Your task to perform on an android device: toggle pop-ups in chrome Image 0: 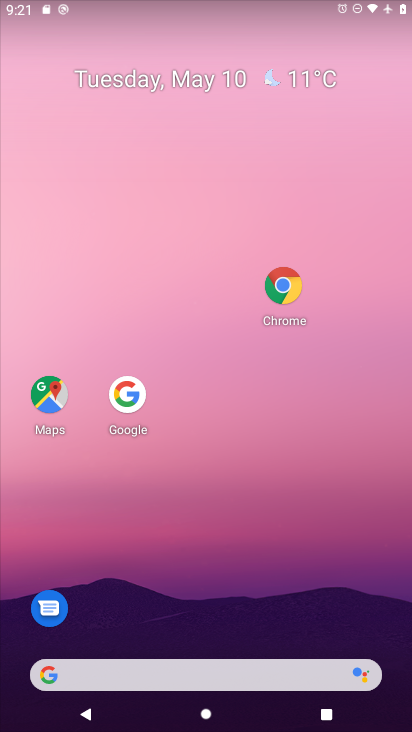
Step 0: drag from (109, 621) to (236, 187)
Your task to perform on an android device: toggle pop-ups in chrome Image 1: 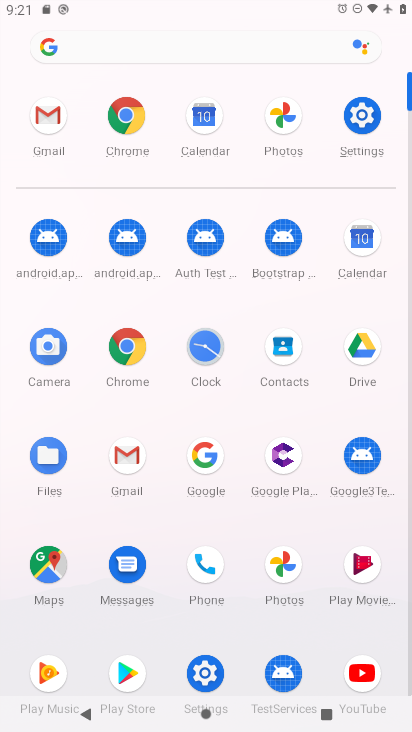
Step 1: click (123, 122)
Your task to perform on an android device: toggle pop-ups in chrome Image 2: 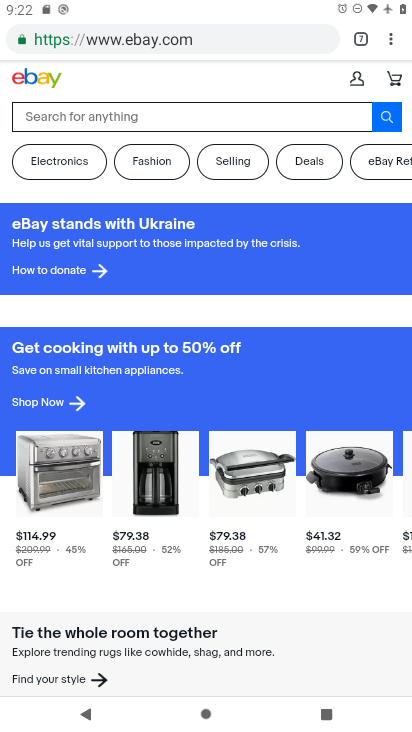
Step 2: drag from (388, 41) to (273, 471)
Your task to perform on an android device: toggle pop-ups in chrome Image 3: 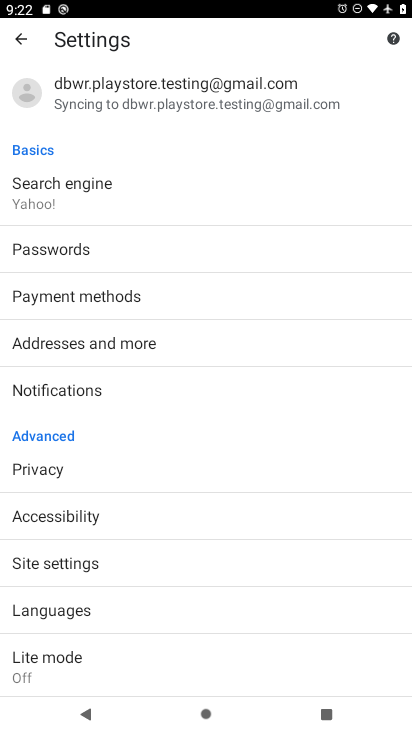
Step 3: click (56, 567)
Your task to perform on an android device: toggle pop-ups in chrome Image 4: 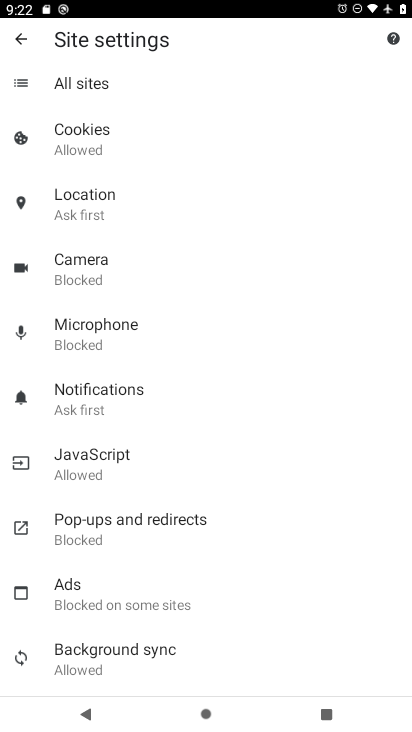
Step 4: click (63, 535)
Your task to perform on an android device: toggle pop-ups in chrome Image 5: 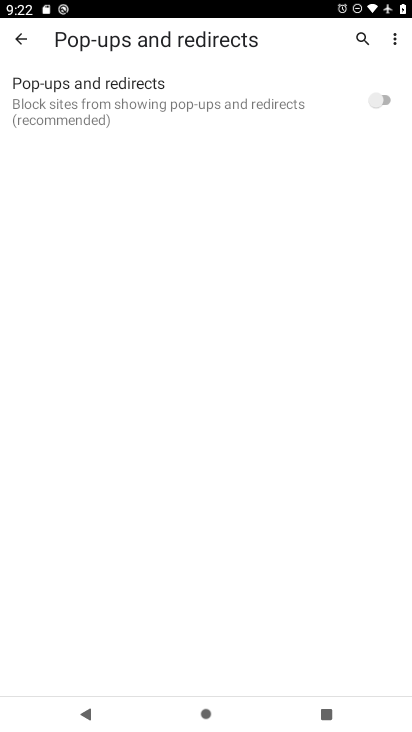
Step 5: click (383, 101)
Your task to perform on an android device: toggle pop-ups in chrome Image 6: 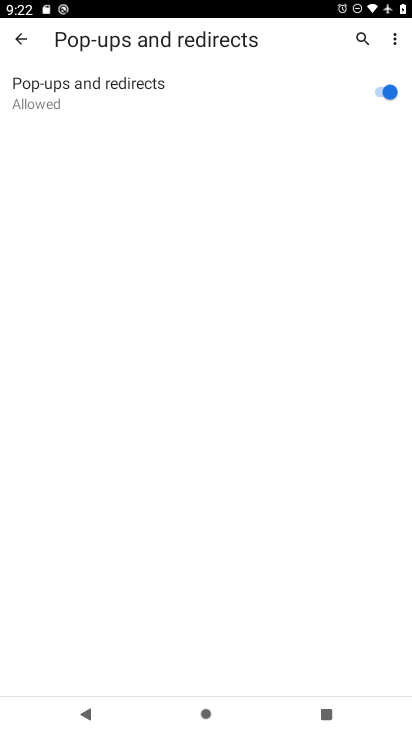
Step 6: task complete